Your task to perform on an android device: turn on airplane mode Image 0: 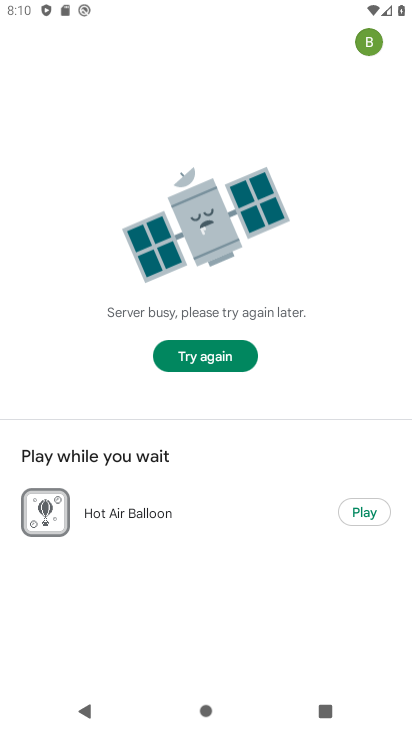
Step 0: drag from (242, 4) to (269, 297)
Your task to perform on an android device: turn on airplane mode Image 1: 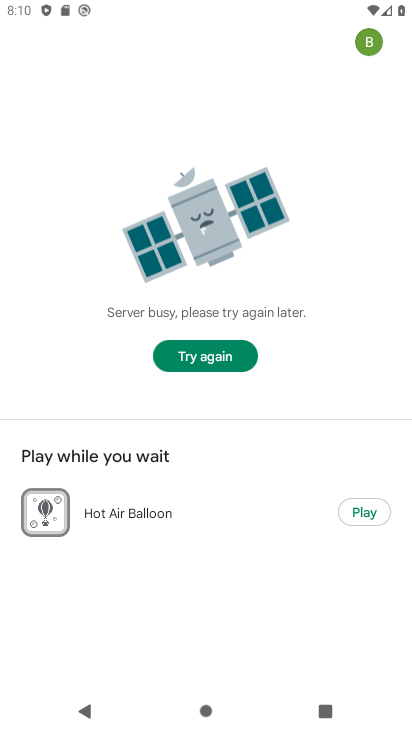
Step 1: drag from (318, 5) to (320, 457)
Your task to perform on an android device: turn on airplane mode Image 2: 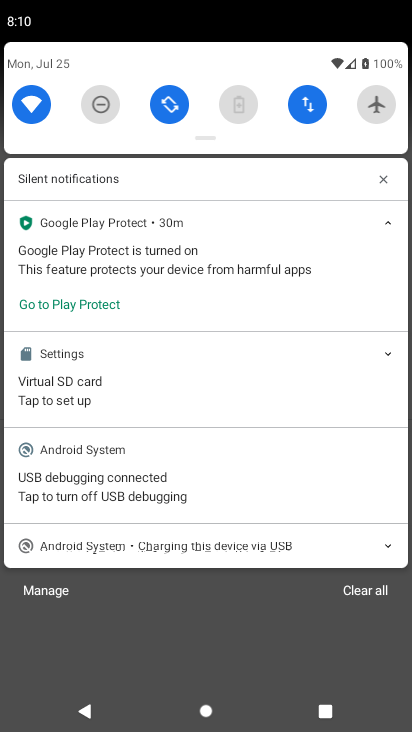
Step 2: click (386, 103)
Your task to perform on an android device: turn on airplane mode Image 3: 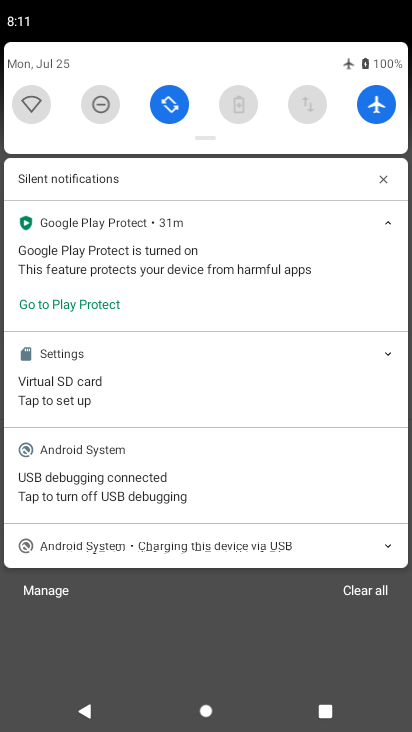
Step 3: task complete